Your task to perform on an android device: turn off javascript in the chrome app Image 0: 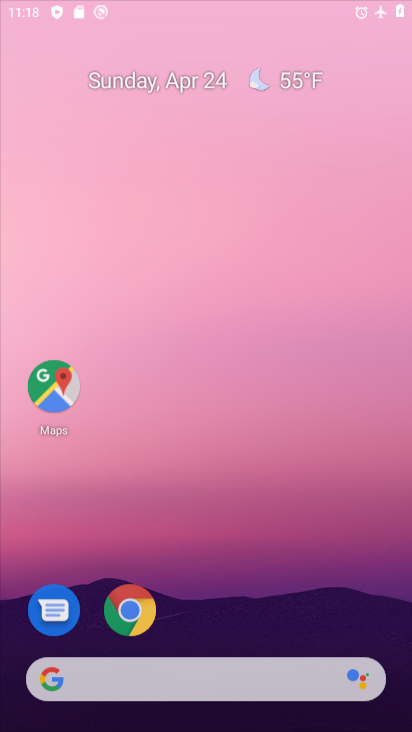
Step 0: drag from (212, 586) to (204, 39)
Your task to perform on an android device: turn off javascript in the chrome app Image 1: 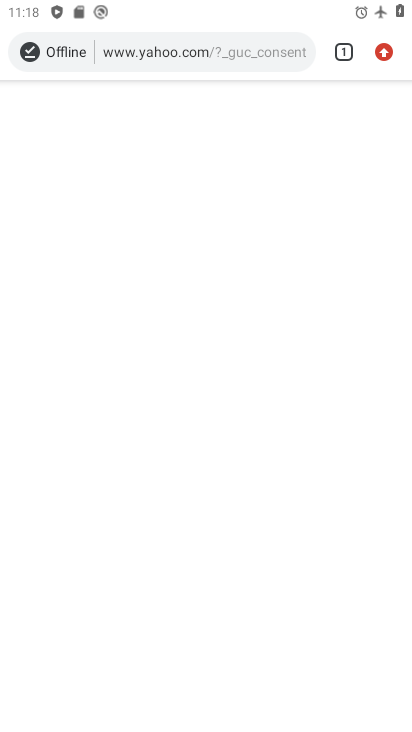
Step 1: press home button
Your task to perform on an android device: turn off javascript in the chrome app Image 2: 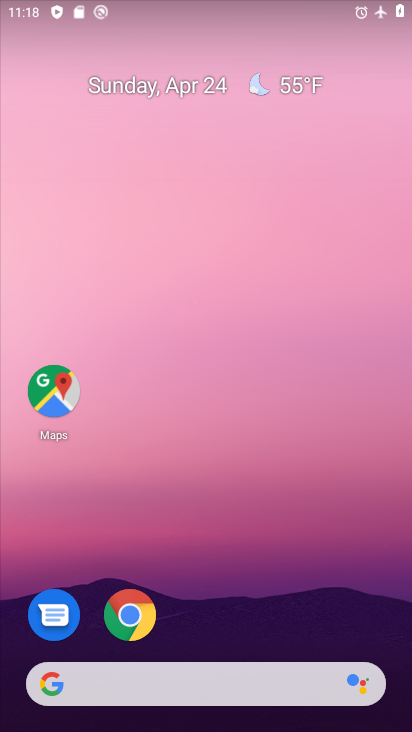
Step 2: drag from (219, 639) to (164, 78)
Your task to perform on an android device: turn off javascript in the chrome app Image 3: 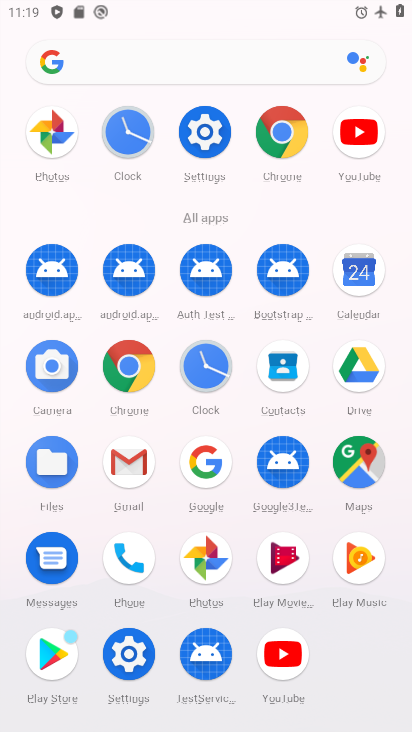
Step 3: click (124, 361)
Your task to perform on an android device: turn off javascript in the chrome app Image 4: 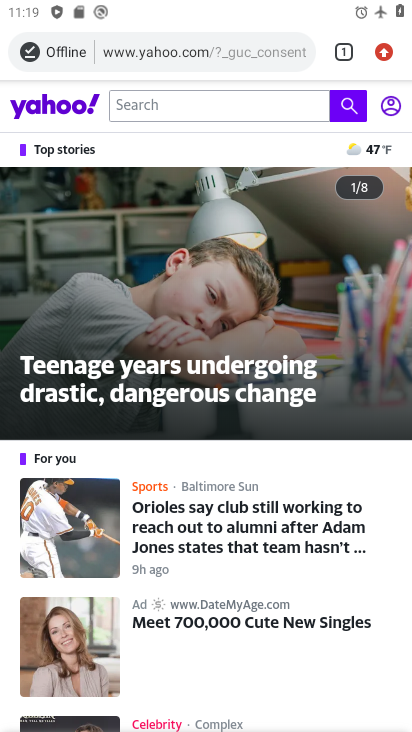
Step 4: click (381, 50)
Your task to perform on an android device: turn off javascript in the chrome app Image 5: 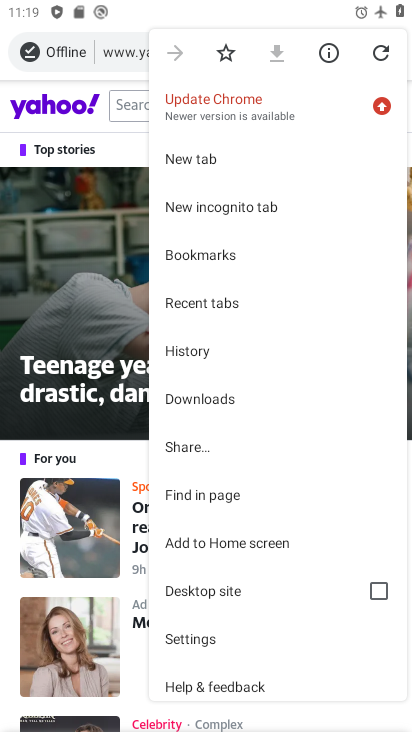
Step 5: click (223, 636)
Your task to perform on an android device: turn off javascript in the chrome app Image 6: 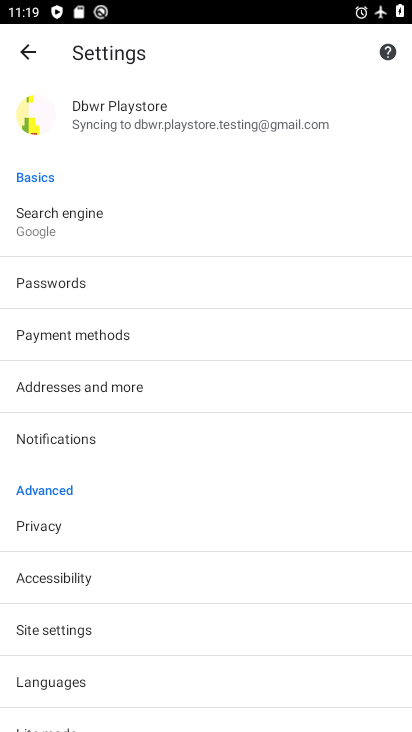
Step 6: click (106, 626)
Your task to perform on an android device: turn off javascript in the chrome app Image 7: 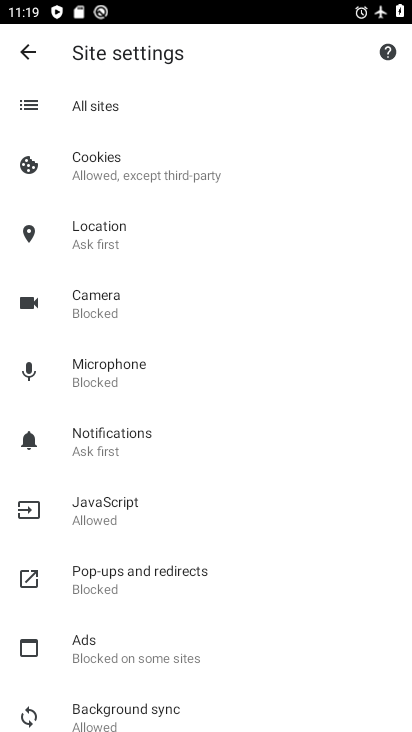
Step 7: click (152, 504)
Your task to perform on an android device: turn off javascript in the chrome app Image 8: 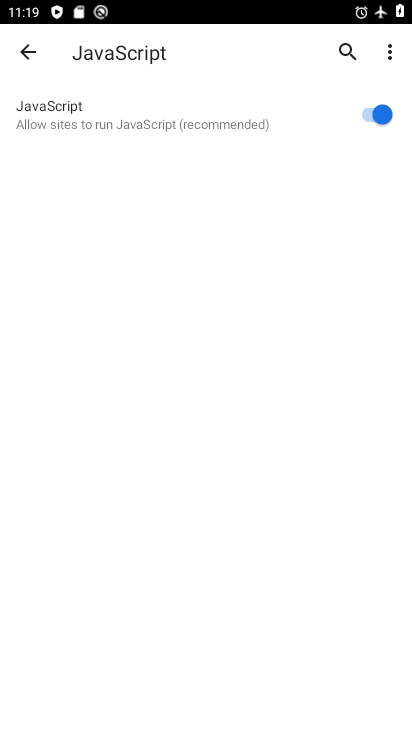
Step 8: click (368, 111)
Your task to perform on an android device: turn off javascript in the chrome app Image 9: 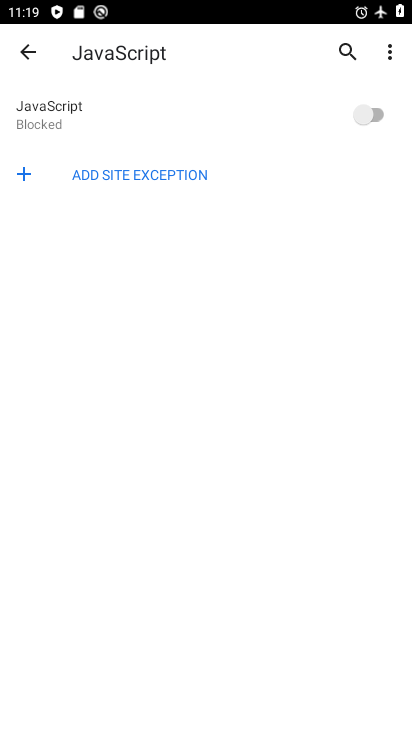
Step 9: task complete